Your task to perform on an android device: turn off location Image 0: 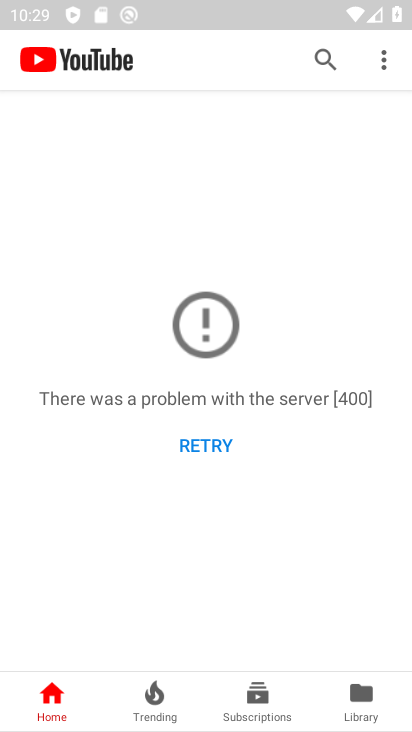
Step 0: press home button
Your task to perform on an android device: turn off location Image 1: 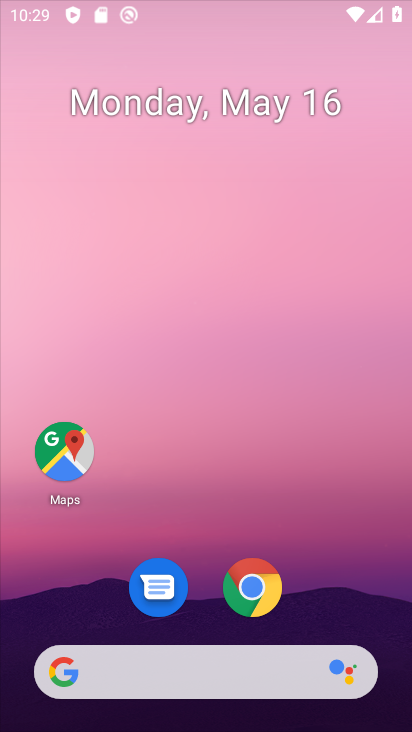
Step 1: drag from (396, 626) to (250, 62)
Your task to perform on an android device: turn off location Image 2: 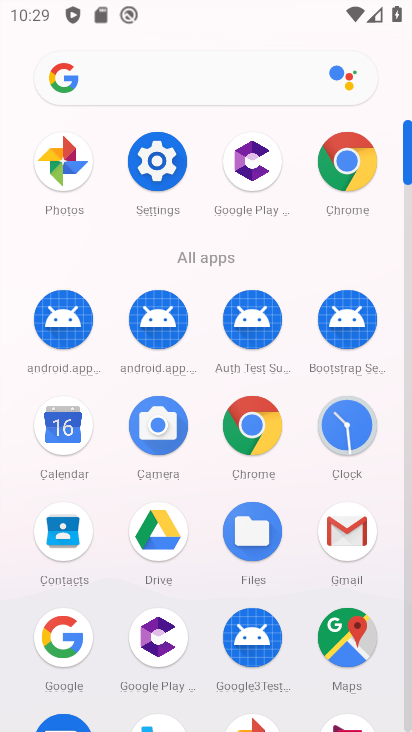
Step 2: click (169, 166)
Your task to perform on an android device: turn off location Image 3: 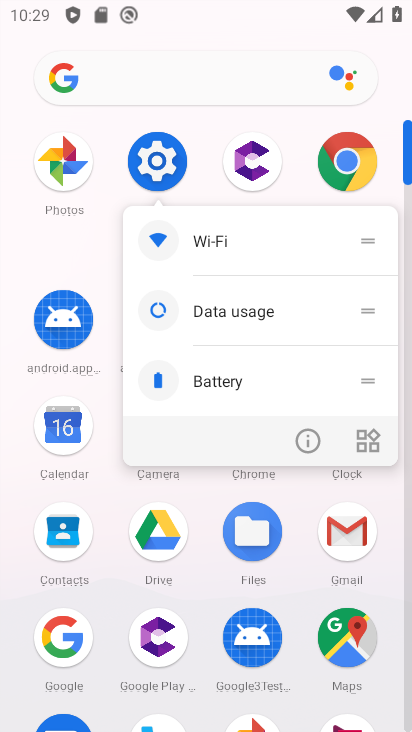
Step 3: click (171, 166)
Your task to perform on an android device: turn off location Image 4: 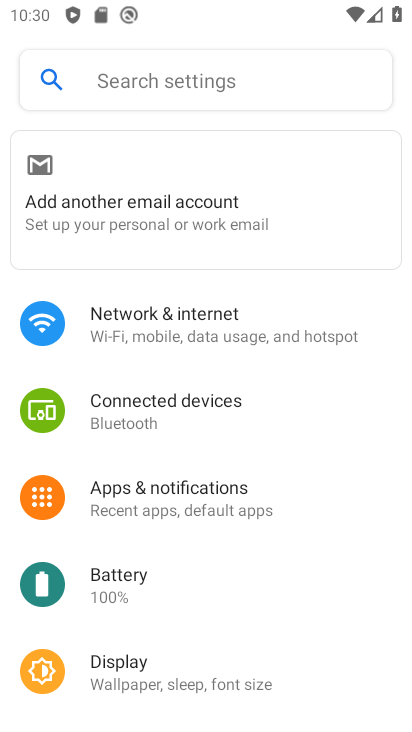
Step 4: drag from (232, 512) to (265, 202)
Your task to perform on an android device: turn off location Image 5: 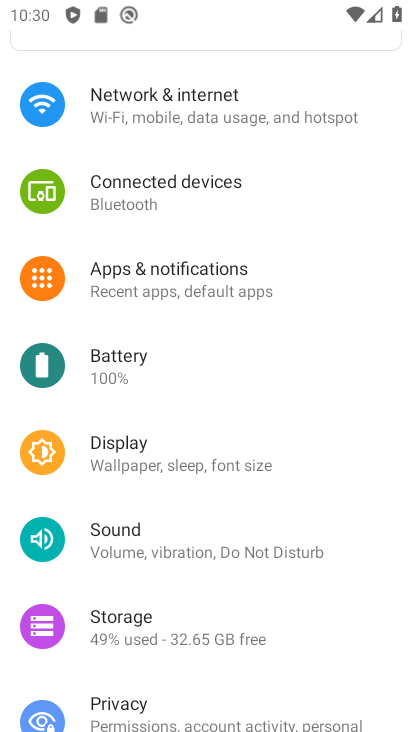
Step 5: drag from (149, 641) to (187, 145)
Your task to perform on an android device: turn off location Image 6: 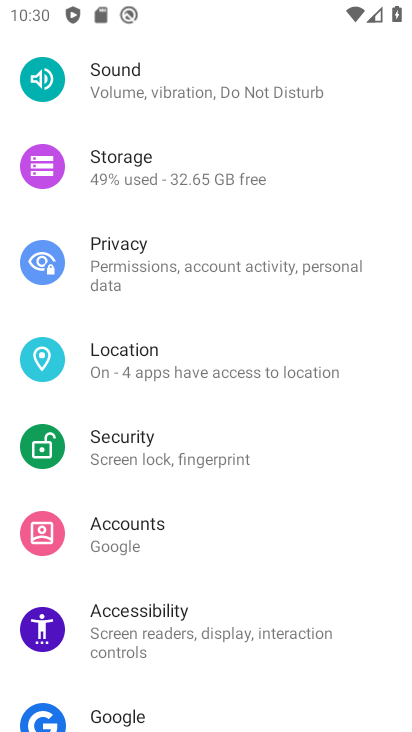
Step 6: click (152, 361)
Your task to perform on an android device: turn off location Image 7: 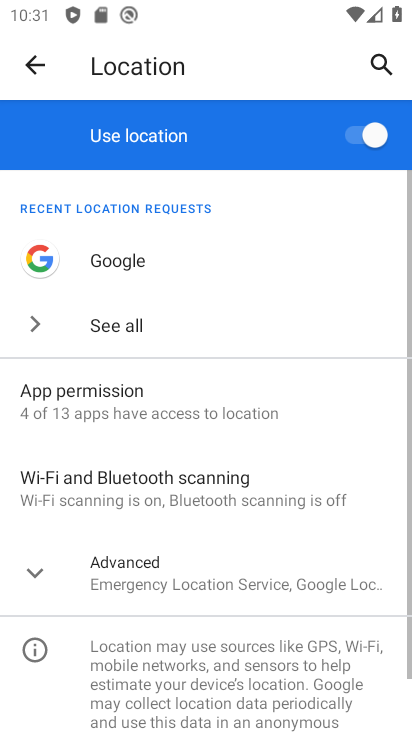
Step 7: click (336, 141)
Your task to perform on an android device: turn off location Image 8: 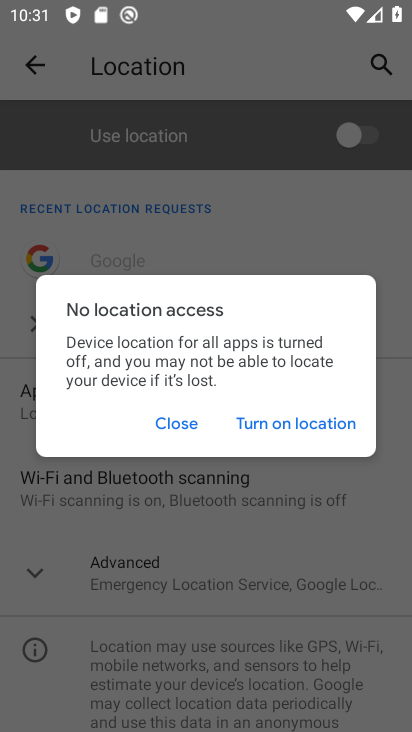
Step 8: task complete